Your task to perform on an android device: see creations saved in the google photos Image 0: 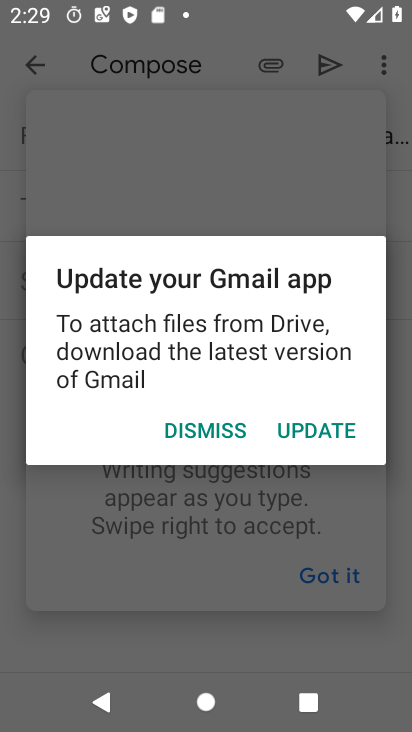
Step 0: press home button
Your task to perform on an android device: see creations saved in the google photos Image 1: 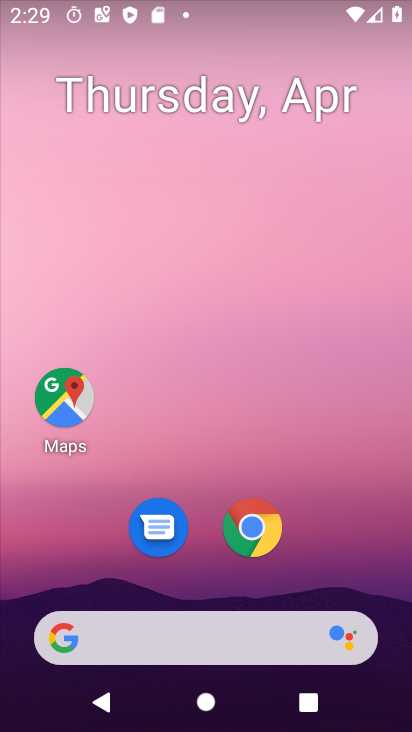
Step 1: drag from (328, 478) to (299, 135)
Your task to perform on an android device: see creations saved in the google photos Image 2: 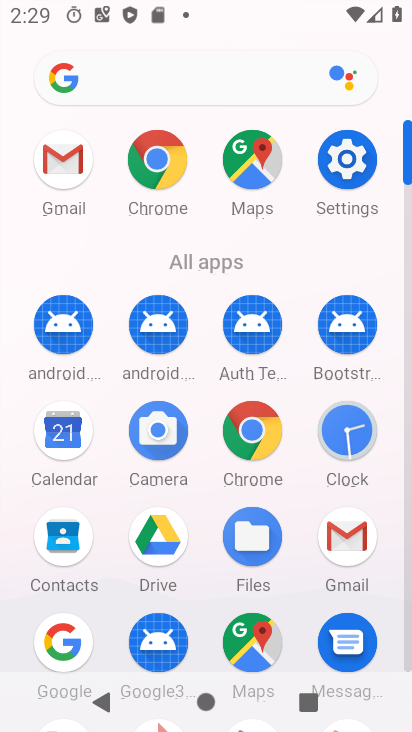
Step 2: drag from (293, 588) to (315, 272)
Your task to perform on an android device: see creations saved in the google photos Image 3: 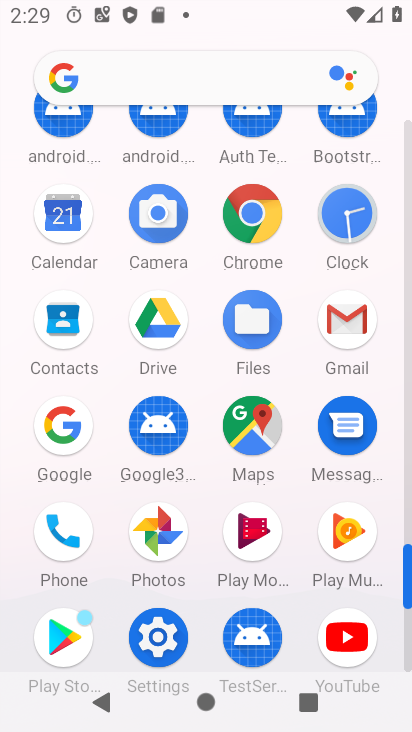
Step 3: click (169, 533)
Your task to perform on an android device: see creations saved in the google photos Image 4: 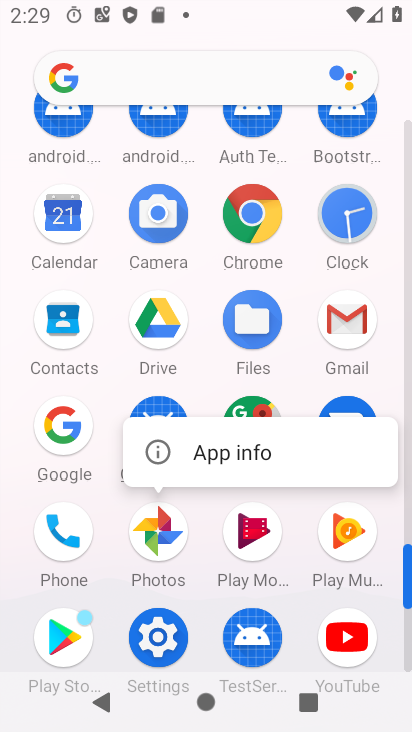
Step 4: click (166, 537)
Your task to perform on an android device: see creations saved in the google photos Image 5: 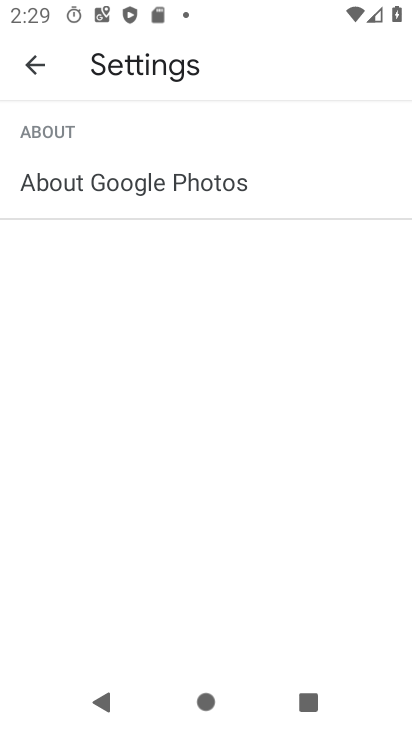
Step 5: click (39, 76)
Your task to perform on an android device: see creations saved in the google photos Image 6: 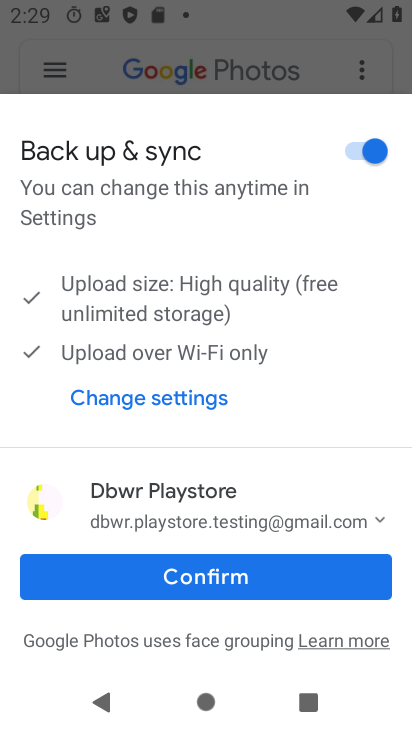
Step 6: click (200, 573)
Your task to perform on an android device: see creations saved in the google photos Image 7: 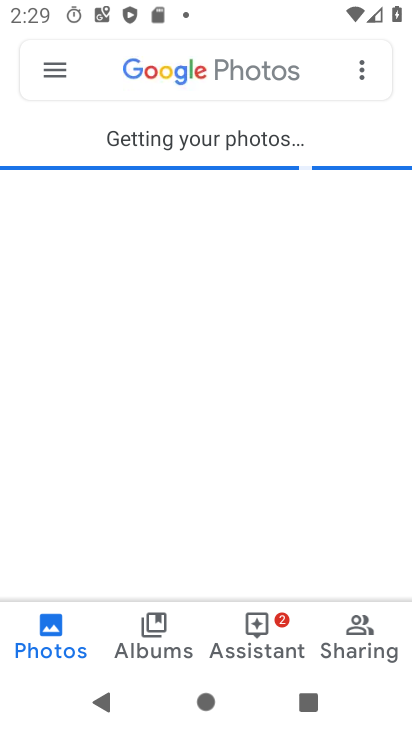
Step 7: click (227, 67)
Your task to perform on an android device: see creations saved in the google photos Image 8: 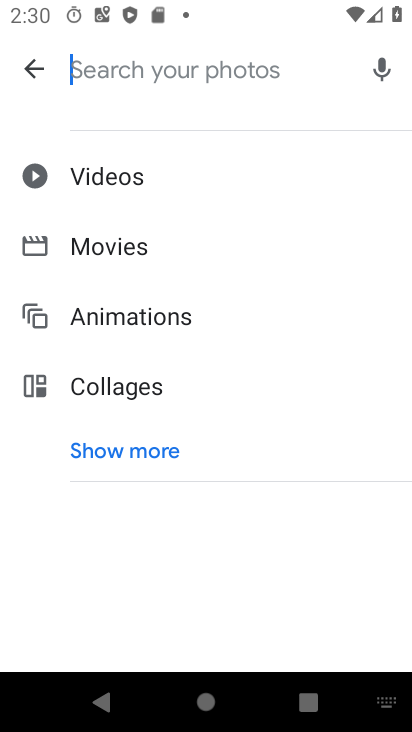
Step 8: click (44, 63)
Your task to perform on an android device: see creations saved in the google photos Image 9: 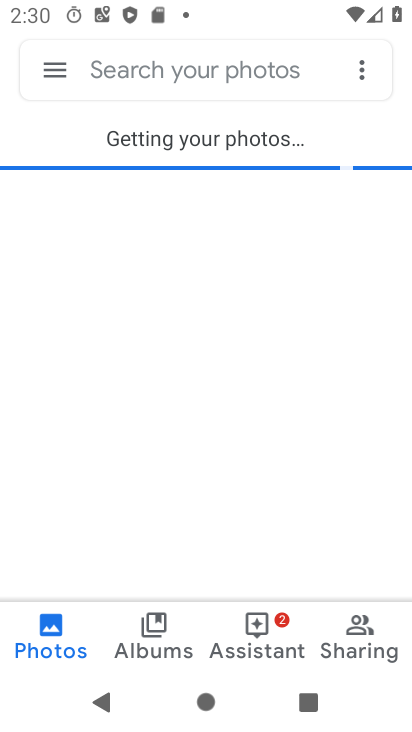
Step 9: click (179, 630)
Your task to perform on an android device: see creations saved in the google photos Image 10: 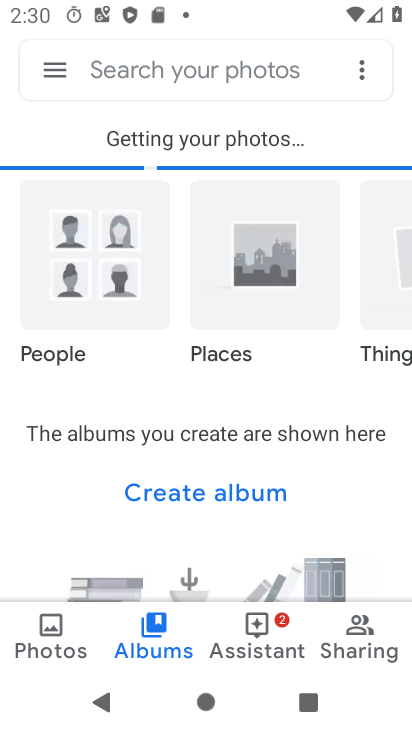
Step 10: click (294, 631)
Your task to perform on an android device: see creations saved in the google photos Image 11: 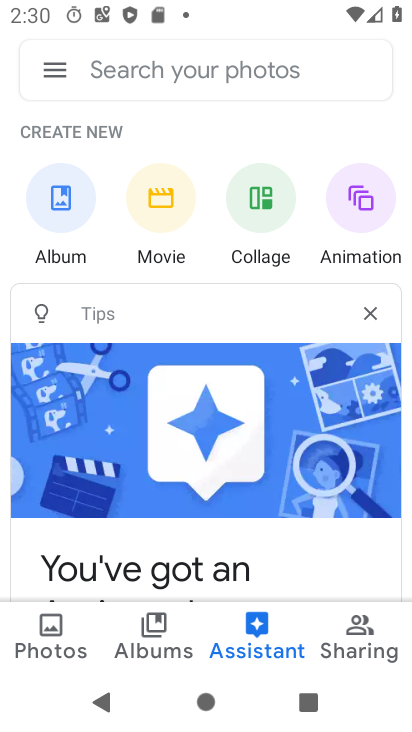
Step 11: click (358, 642)
Your task to perform on an android device: see creations saved in the google photos Image 12: 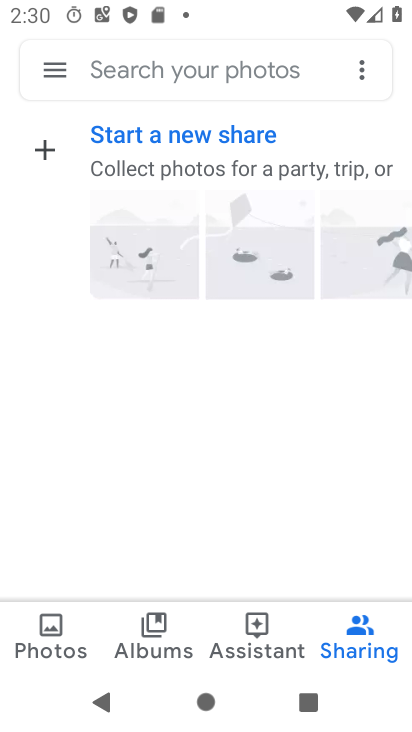
Step 12: task complete